Your task to perform on an android device: Open maps Image 0: 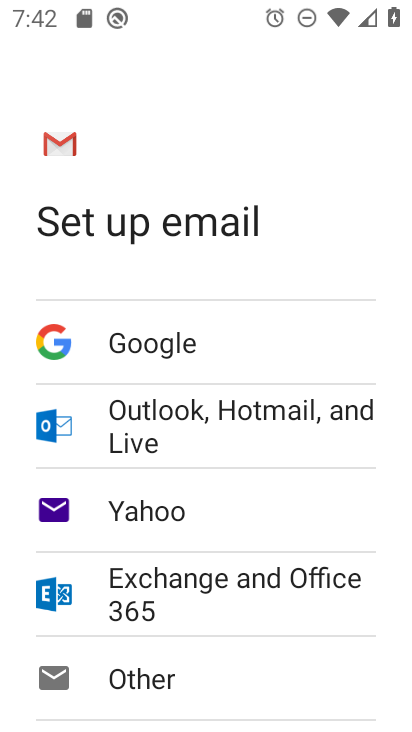
Step 0: press home button
Your task to perform on an android device: Open maps Image 1: 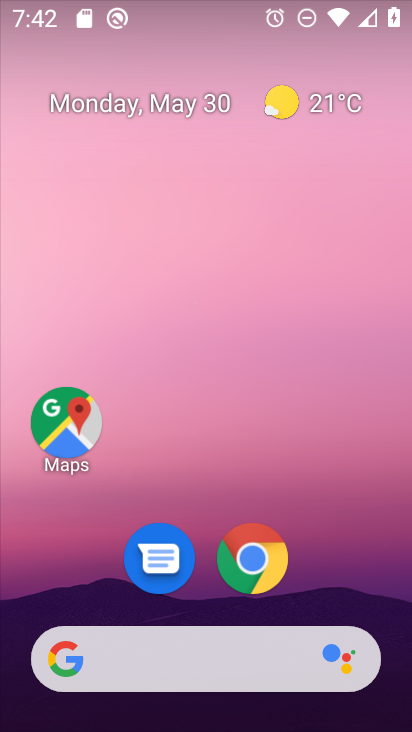
Step 1: click (62, 443)
Your task to perform on an android device: Open maps Image 2: 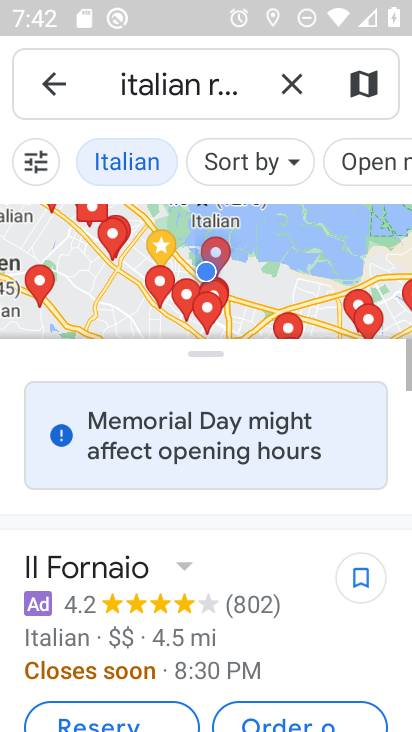
Step 2: click (49, 78)
Your task to perform on an android device: Open maps Image 3: 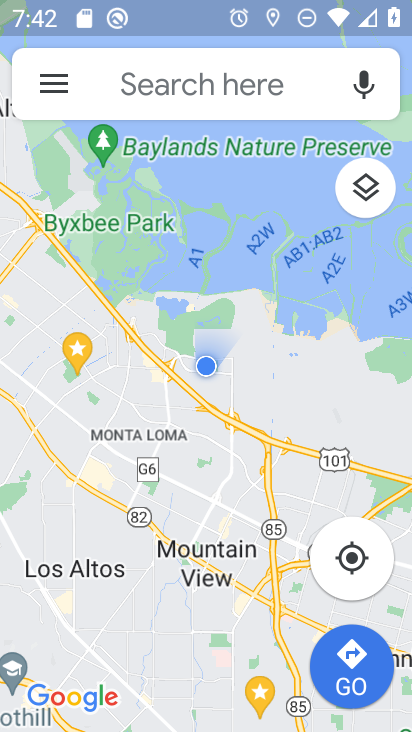
Step 3: task complete